Your task to perform on an android device: set an alarm Image 0: 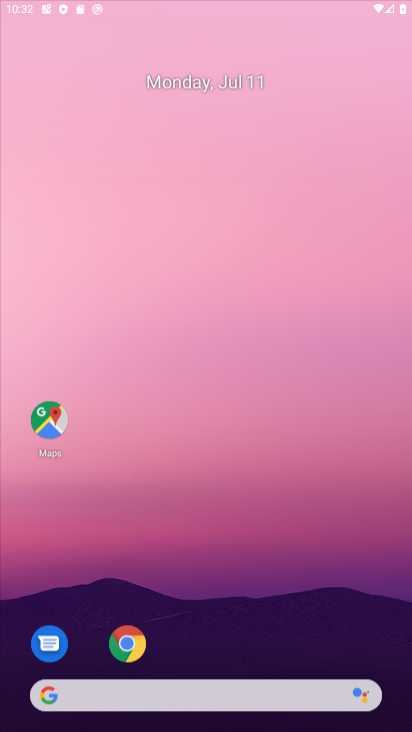
Step 0: press home button
Your task to perform on an android device: set an alarm Image 1: 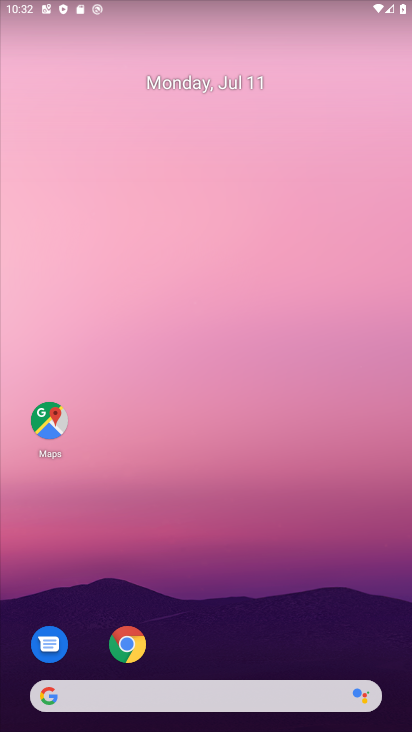
Step 1: drag from (195, 651) to (226, 142)
Your task to perform on an android device: set an alarm Image 2: 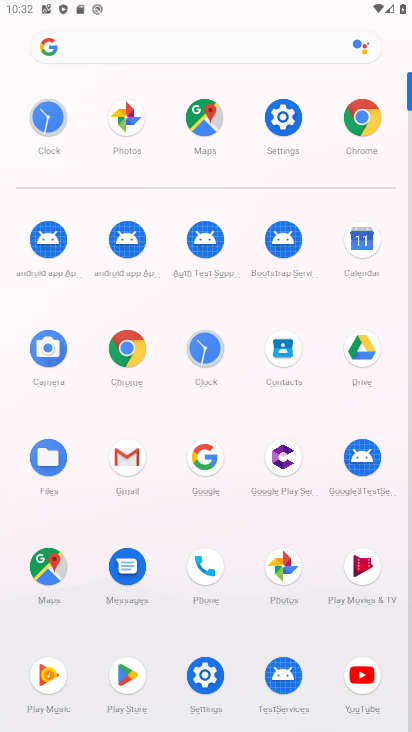
Step 2: click (202, 347)
Your task to perform on an android device: set an alarm Image 3: 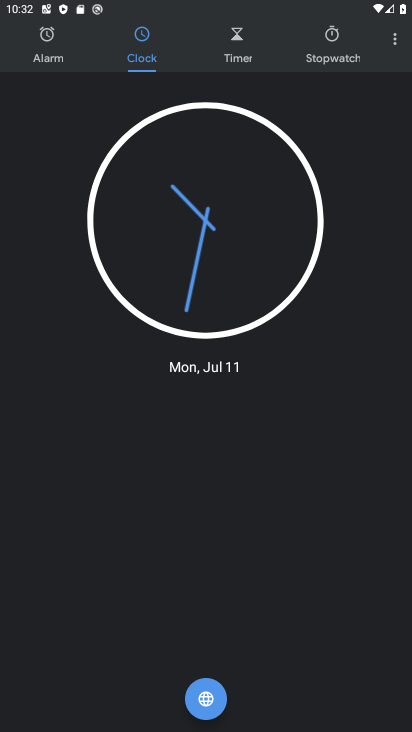
Step 3: click (45, 32)
Your task to perform on an android device: set an alarm Image 4: 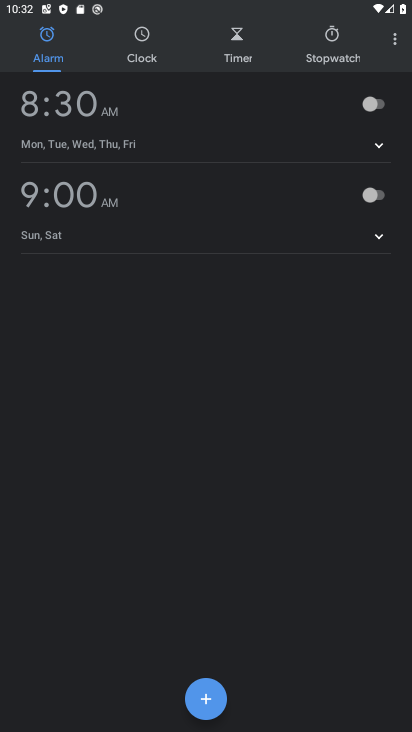
Step 4: click (378, 104)
Your task to perform on an android device: set an alarm Image 5: 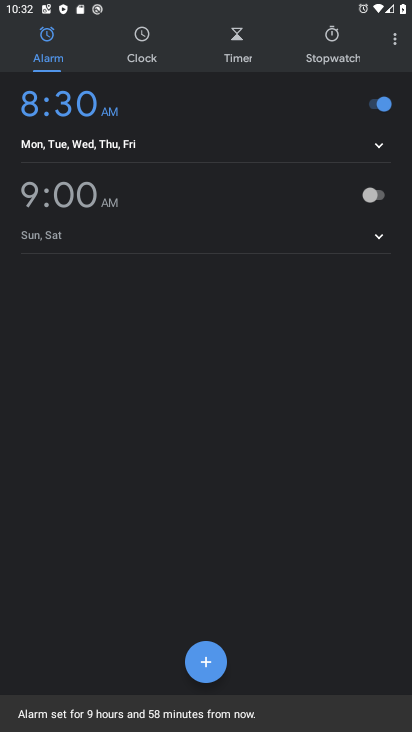
Step 5: click (379, 198)
Your task to perform on an android device: set an alarm Image 6: 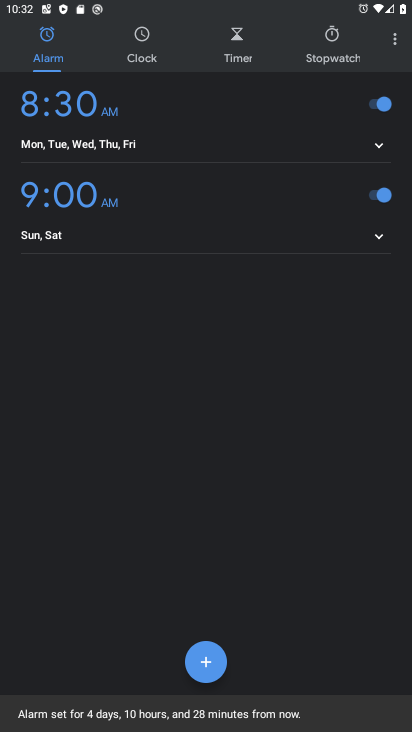
Step 6: task complete